Your task to perform on an android device: refresh tabs in the chrome app Image 0: 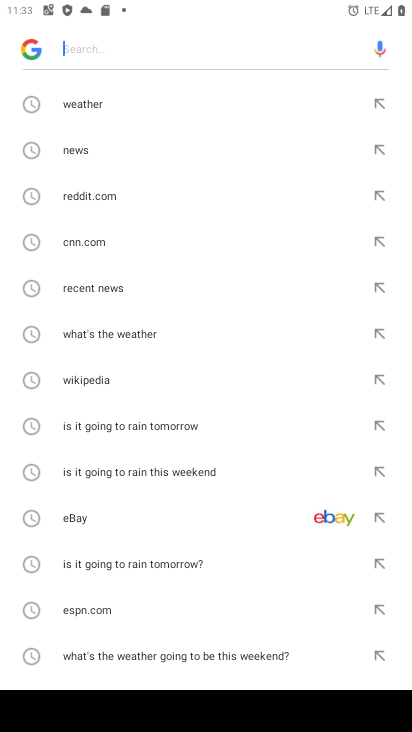
Step 0: press home button
Your task to perform on an android device: refresh tabs in the chrome app Image 1: 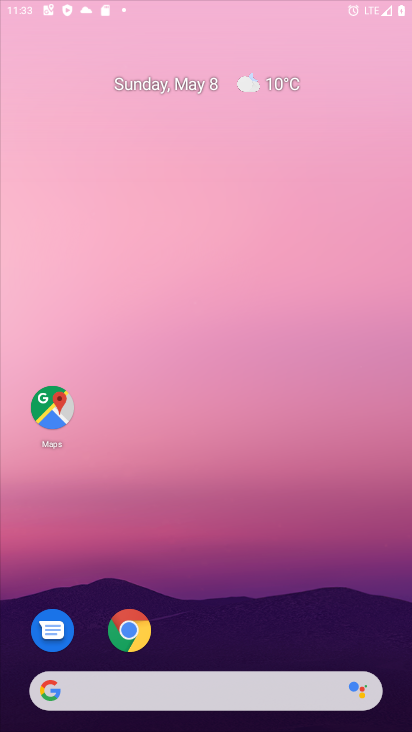
Step 1: press home button
Your task to perform on an android device: refresh tabs in the chrome app Image 2: 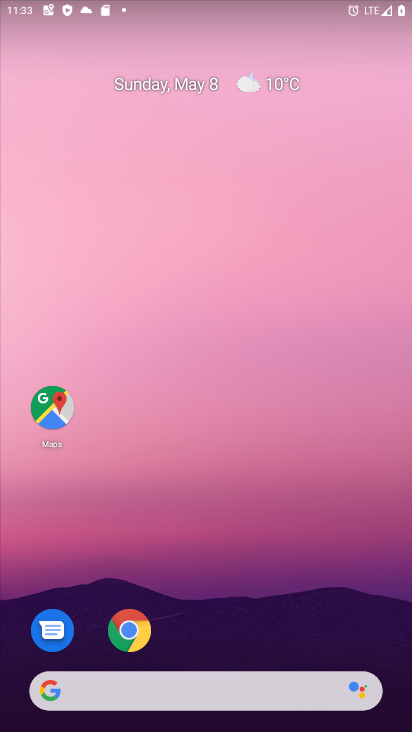
Step 2: drag from (334, 640) to (265, 117)
Your task to perform on an android device: refresh tabs in the chrome app Image 3: 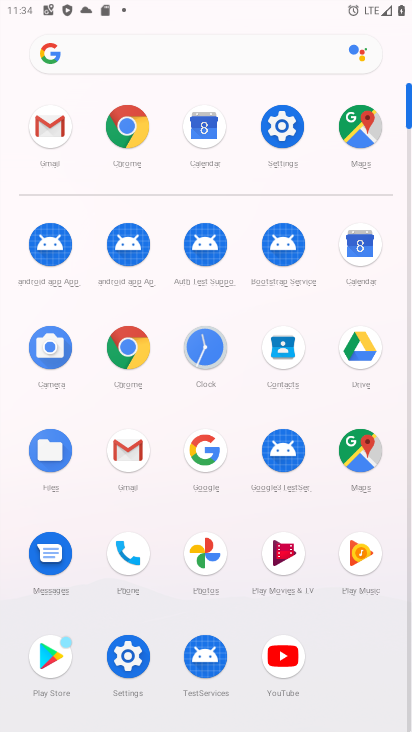
Step 3: click (133, 141)
Your task to perform on an android device: refresh tabs in the chrome app Image 4: 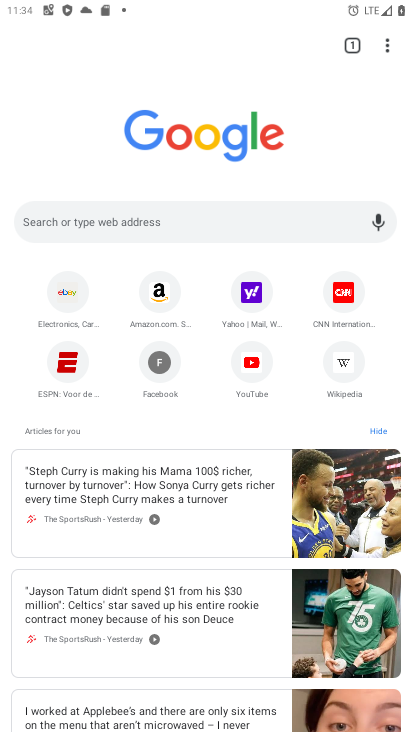
Step 4: click (392, 41)
Your task to perform on an android device: refresh tabs in the chrome app Image 5: 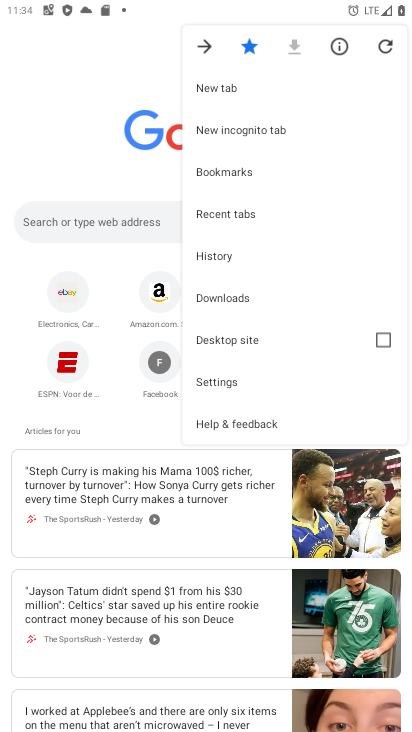
Step 5: click (382, 46)
Your task to perform on an android device: refresh tabs in the chrome app Image 6: 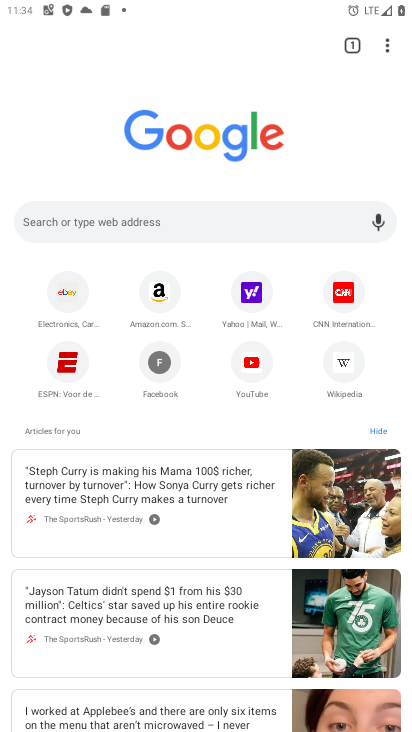
Step 6: task complete